Your task to perform on an android device: Open ESPN.com Image 0: 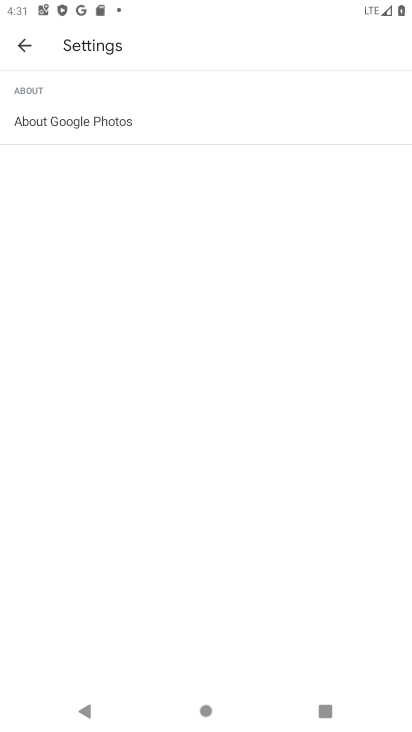
Step 0: press home button
Your task to perform on an android device: Open ESPN.com Image 1: 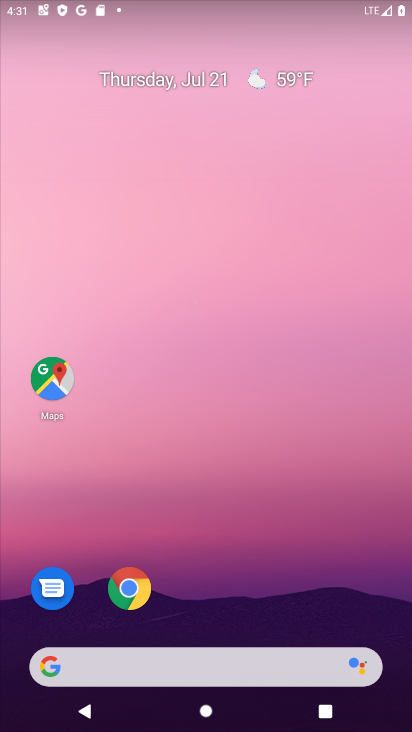
Step 1: click (134, 589)
Your task to perform on an android device: Open ESPN.com Image 2: 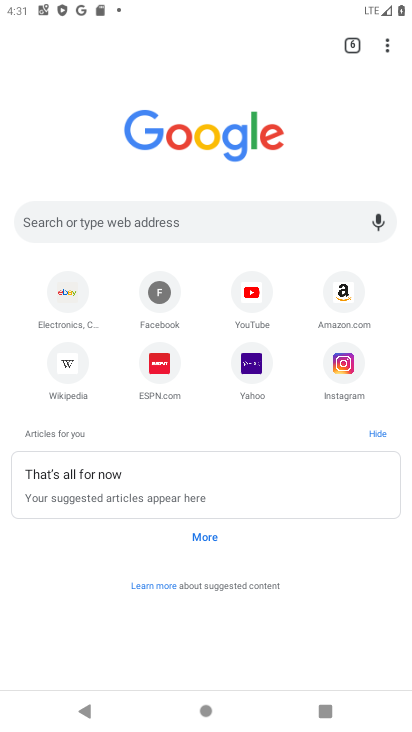
Step 2: click (164, 359)
Your task to perform on an android device: Open ESPN.com Image 3: 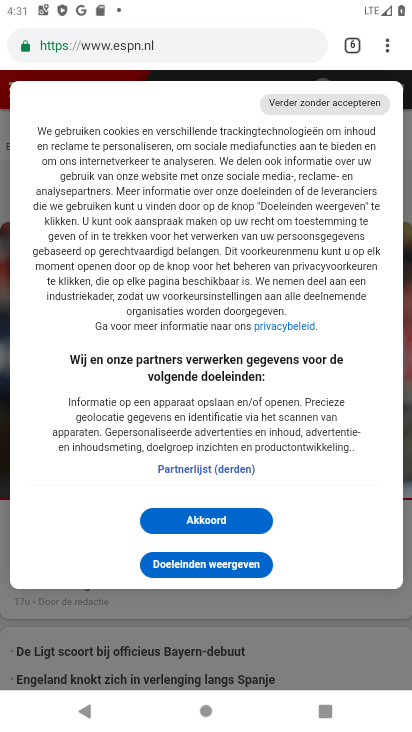
Step 3: click (175, 525)
Your task to perform on an android device: Open ESPN.com Image 4: 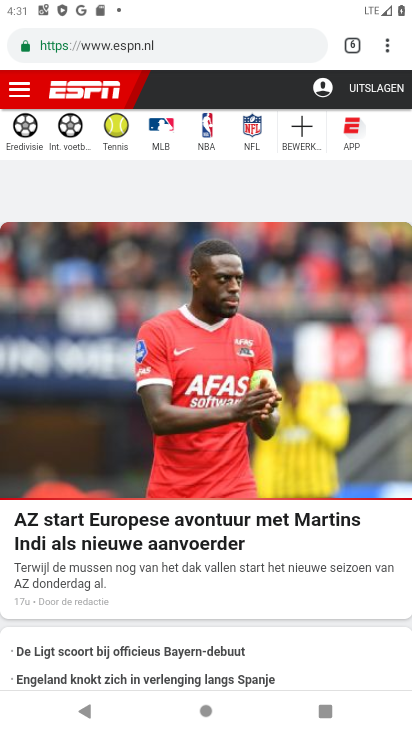
Step 4: task complete